Your task to perform on an android device: clear history in the chrome app Image 0: 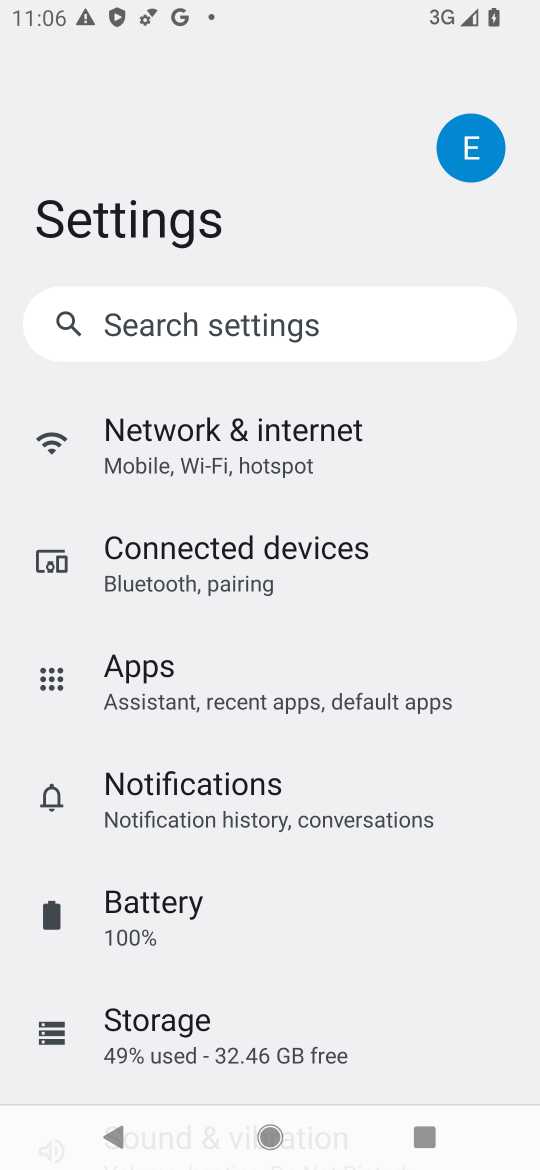
Step 0: press home button
Your task to perform on an android device: clear history in the chrome app Image 1: 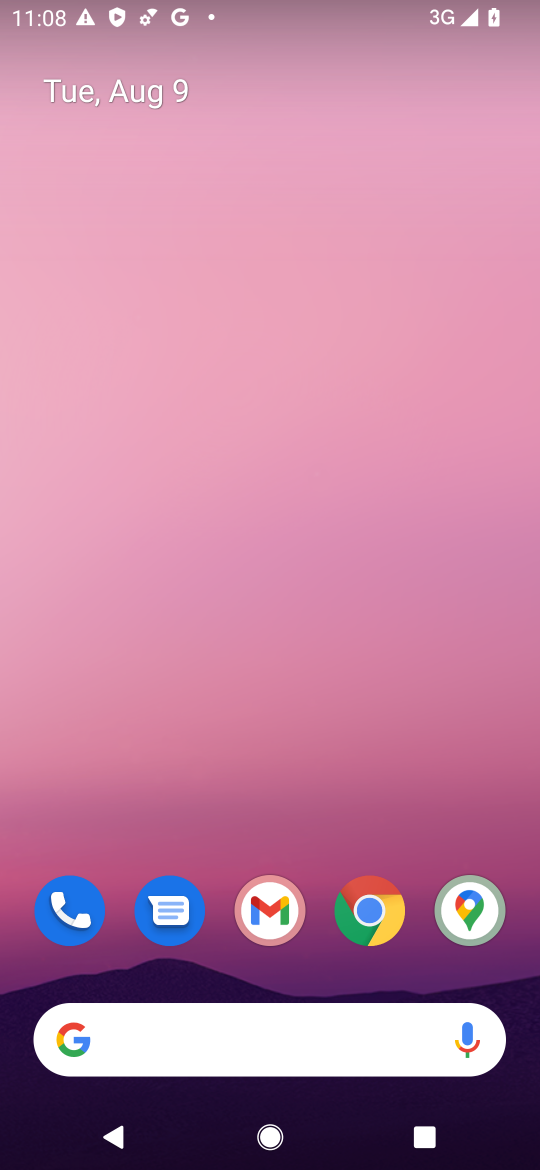
Step 1: click (356, 906)
Your task to perform on an android device: clear history in the chrome app Image 2: 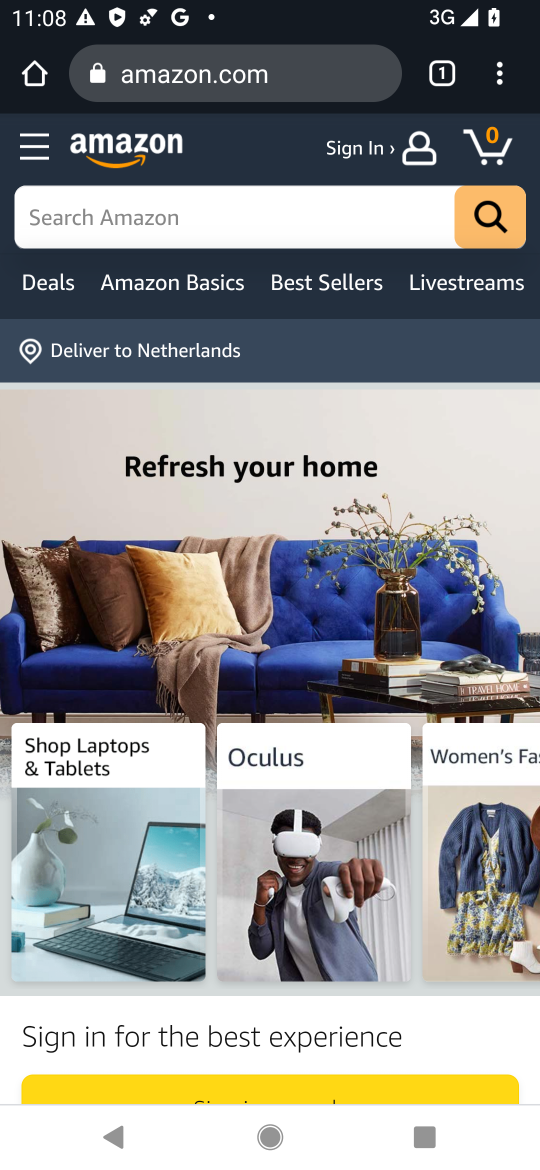
Step 2: click (496, 73)
Your task to perform on an android device: clear history in the chrome app Image 3: 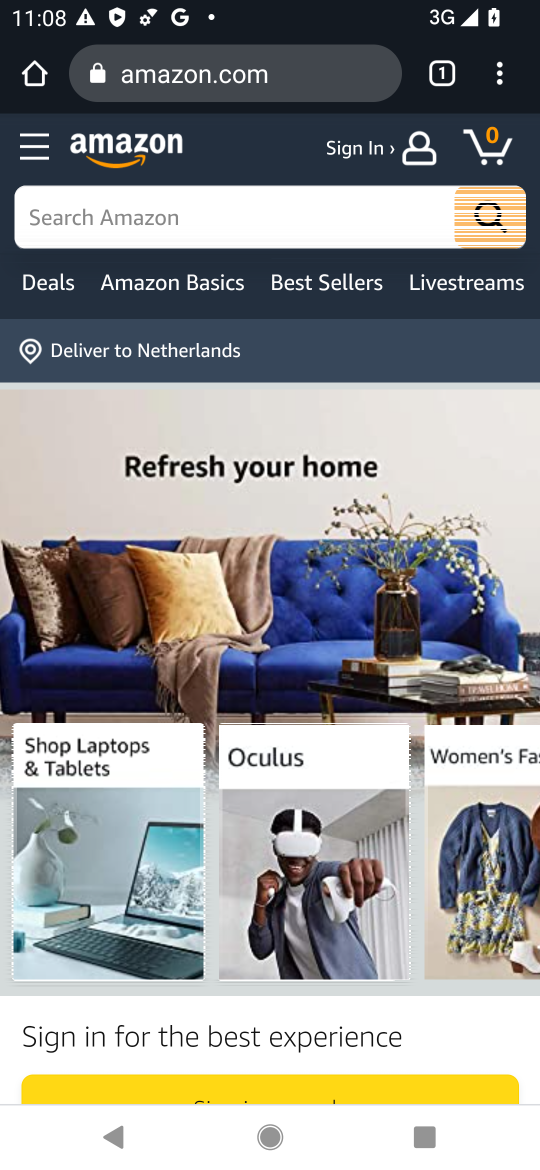
Step 3: click (498, 79)
Your task to perform on an android device: clear history in the chrome app Image 4: 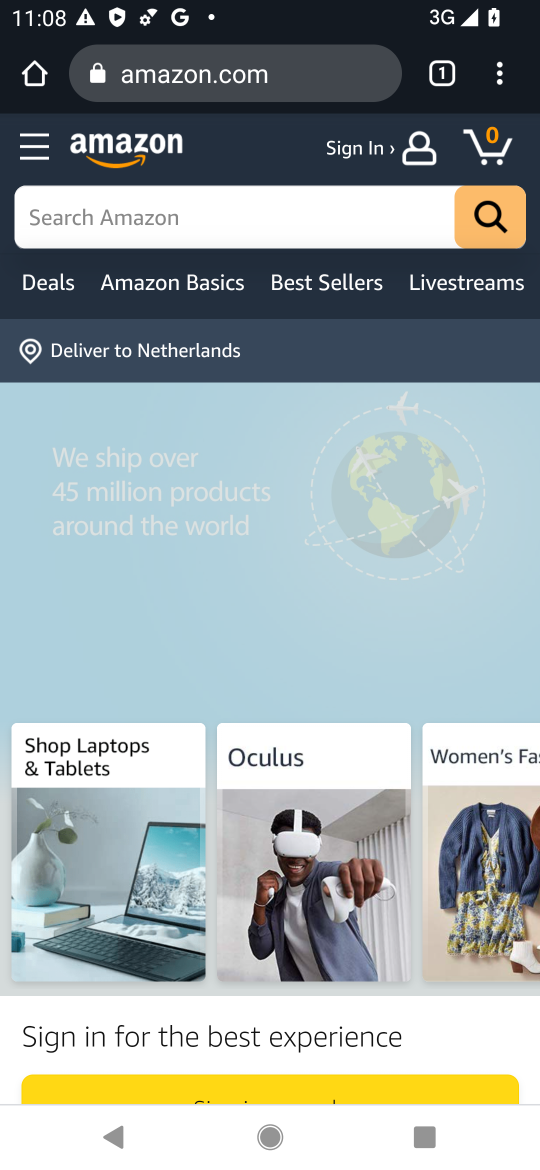
Step 4: click (499, 83)
Your task to perform on an android device: clear history in the chrome app Image 5: 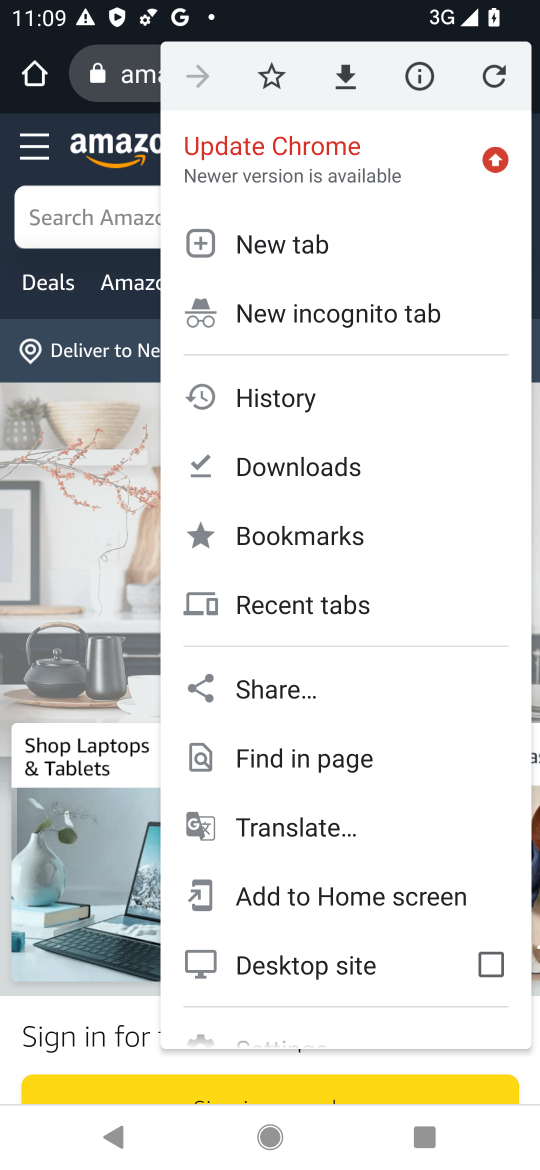
Step 5: click (322, 391)
Your task to perform on an android device: clear history in the chrome app Image 6: 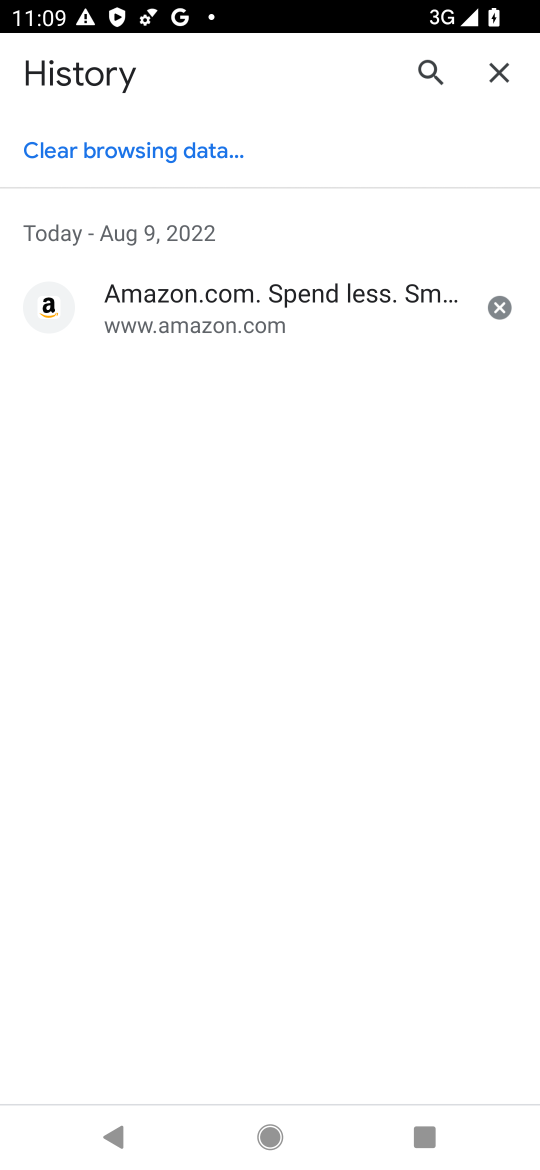
Step 6: click (93, 158)
Your task to perform on an android device: clear history in the chrome app Image 7: 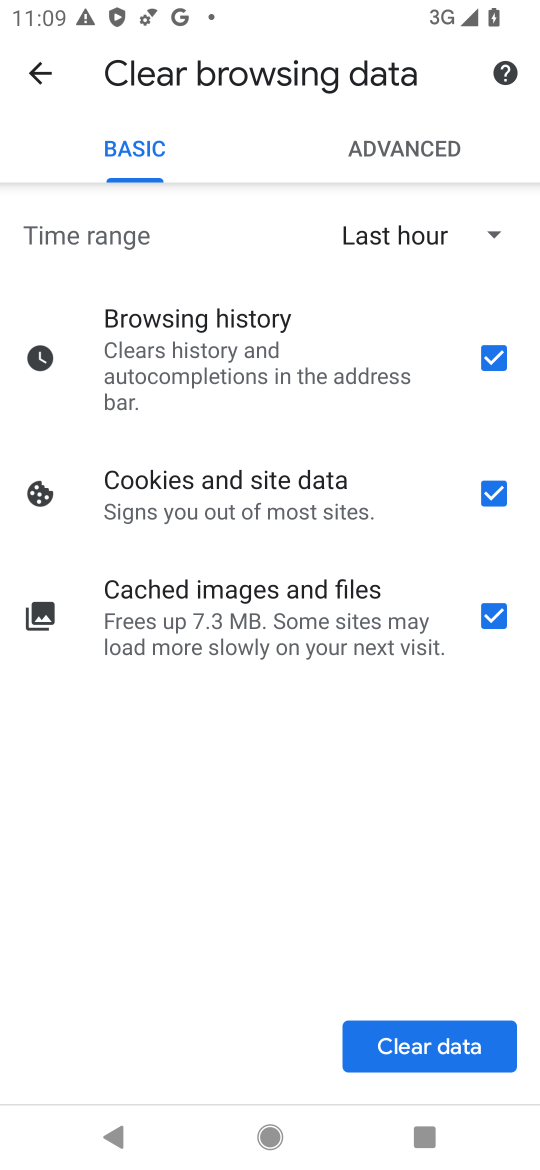
Step 7: click (418, 1051)
Your task to perform on an android device: clear history in the chrome app Image 8: 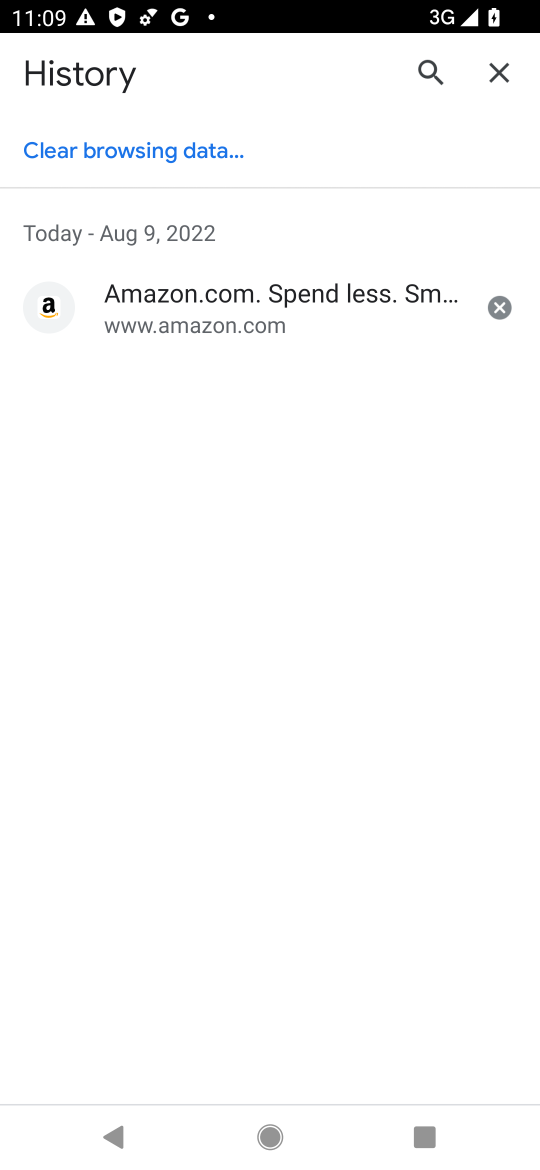
Step 8: task complete